Your task to perform on an android device: turn on javascript in the chrome app Image 0: 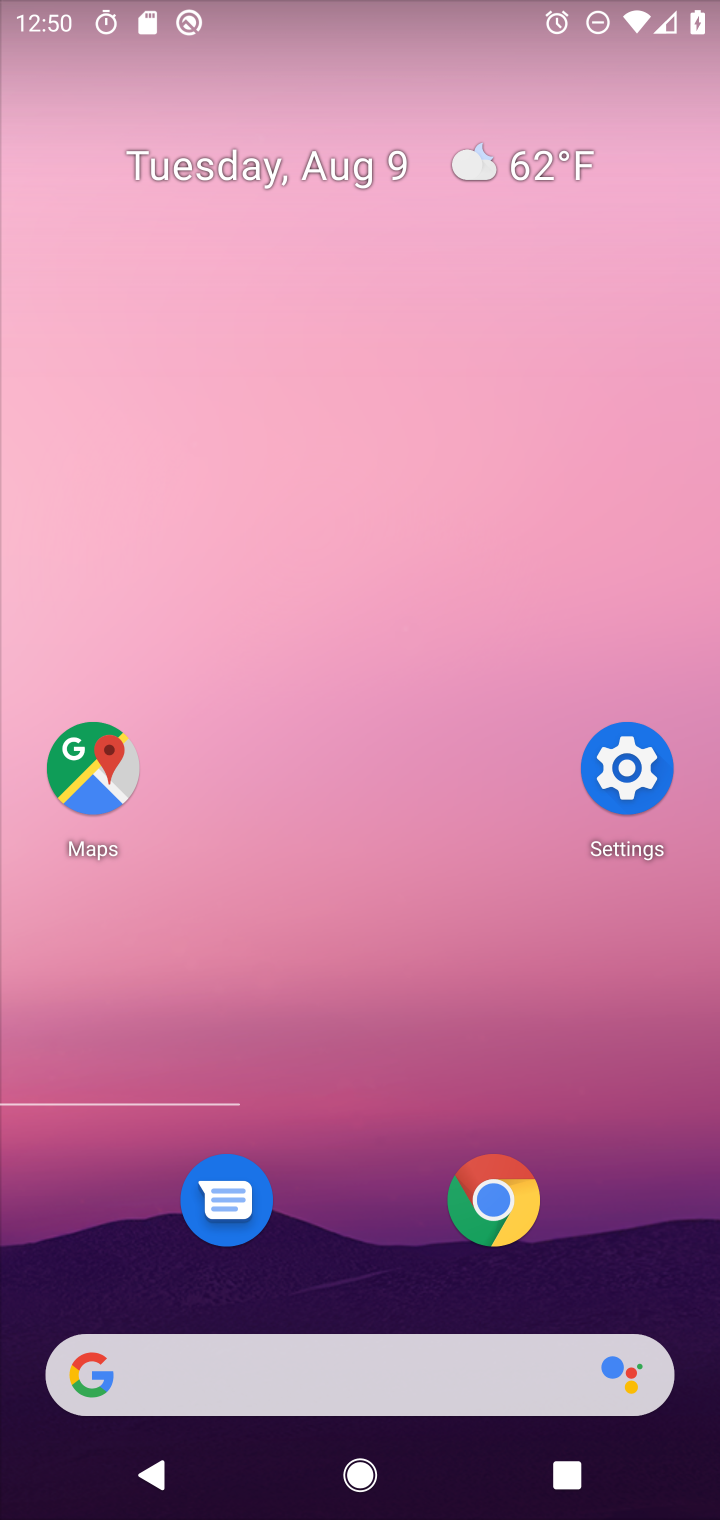
Step 0: click (502, 1203)
Your task to perform on an android device: turn on javascript in the chrome app Image 1: 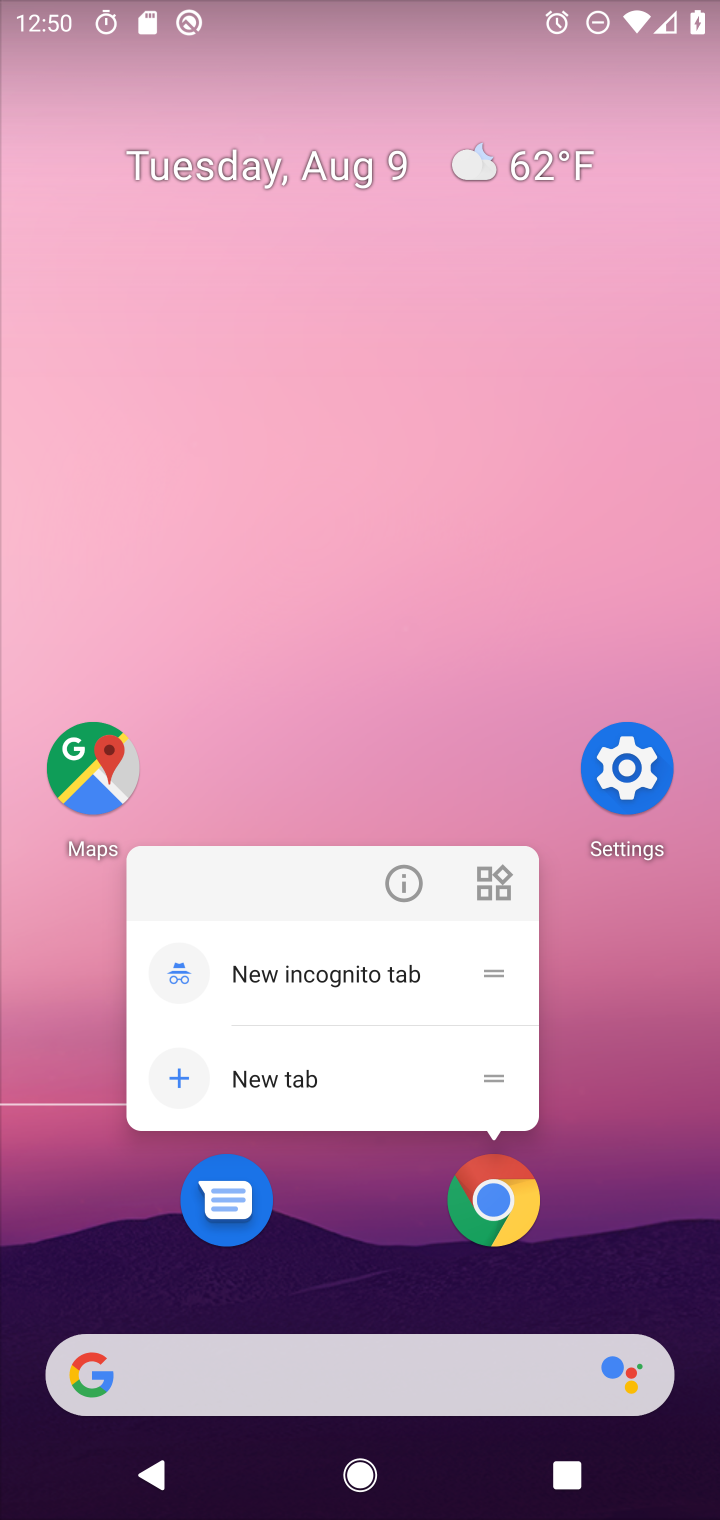
Step 1: click (489, 1191)
Your task to perform on an android device: turn on javascript in the chrome app Image 2: 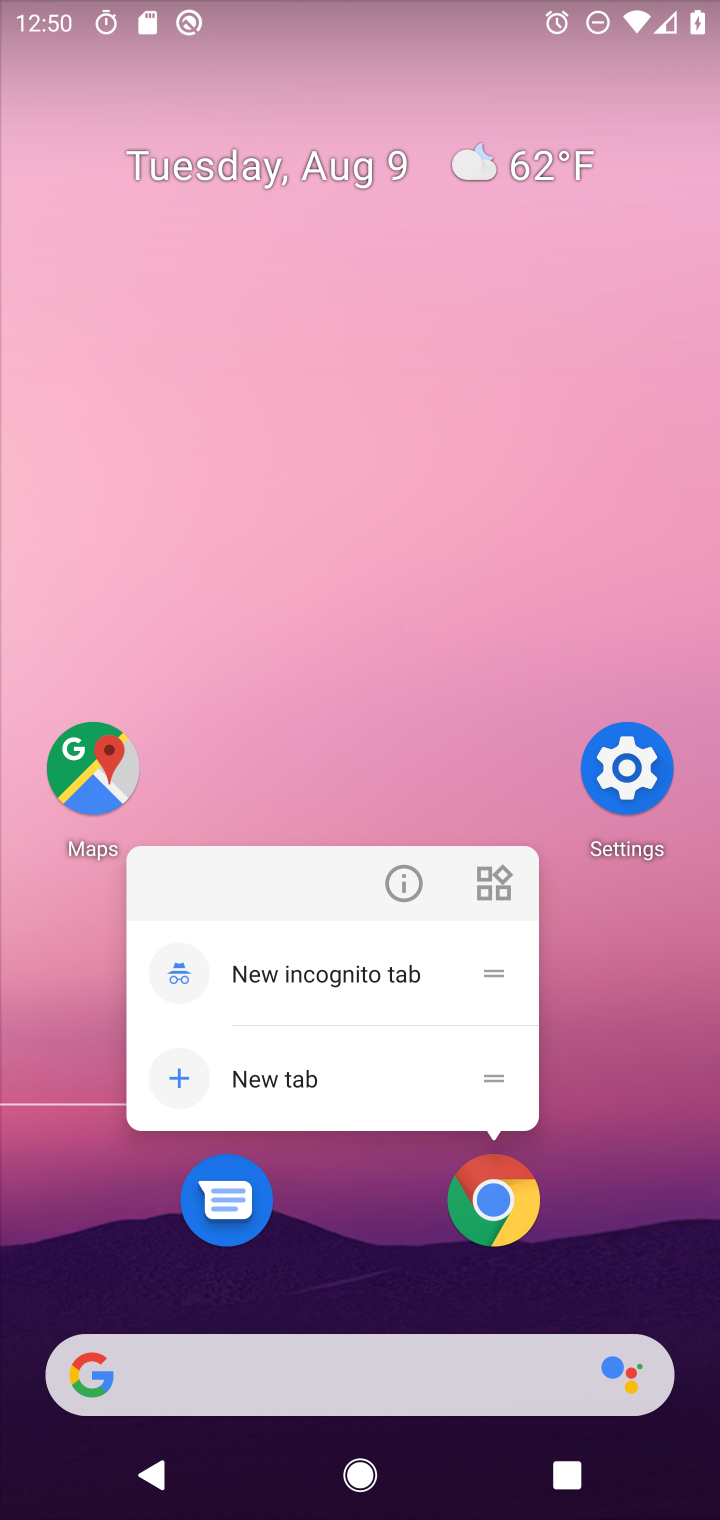
Step 2: click (489, 1201)
Your task to perform on an android device: turn on javascript in the chrome app Image 3: 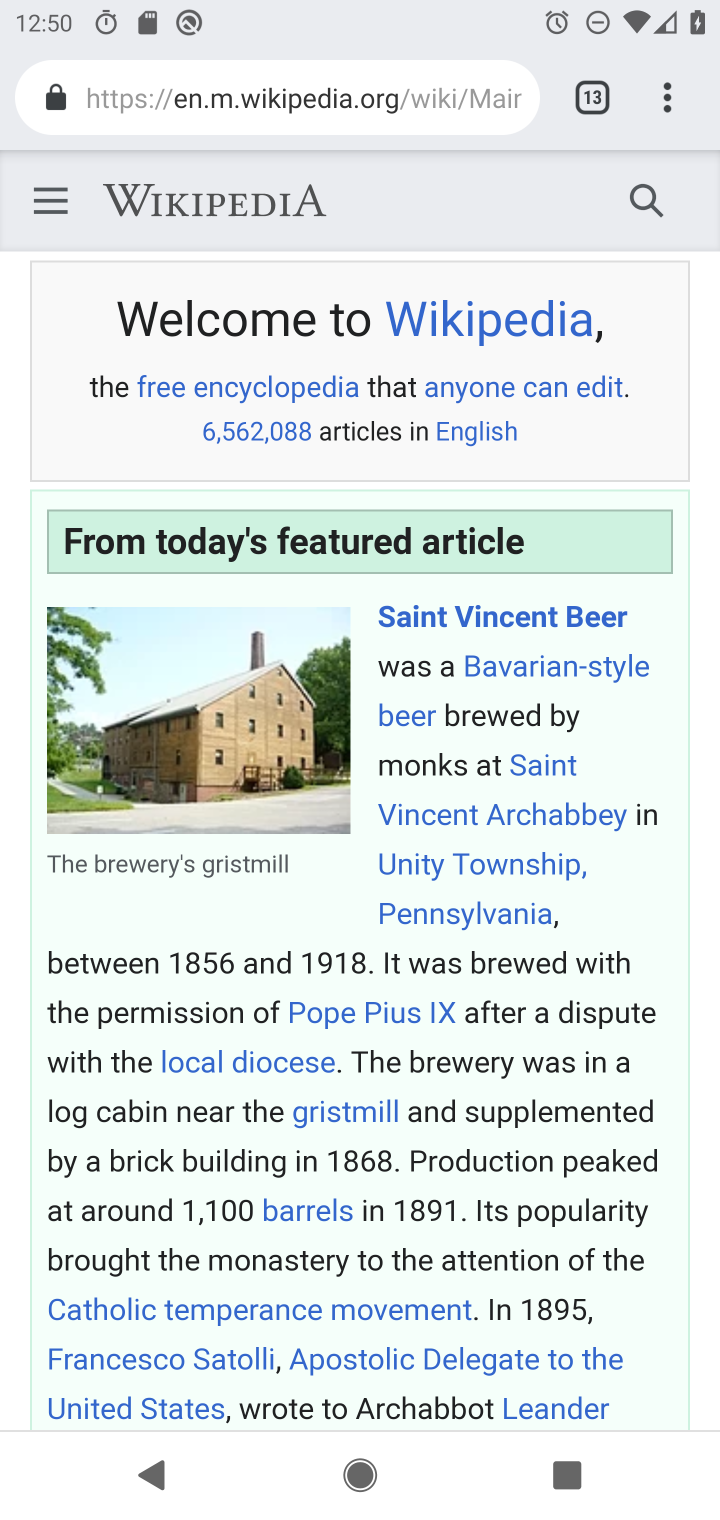
Step 3: drag from (660, 79) to (392, 1254)
Your task to perform on an android device: turn on javascript in the chrome app Image 4: 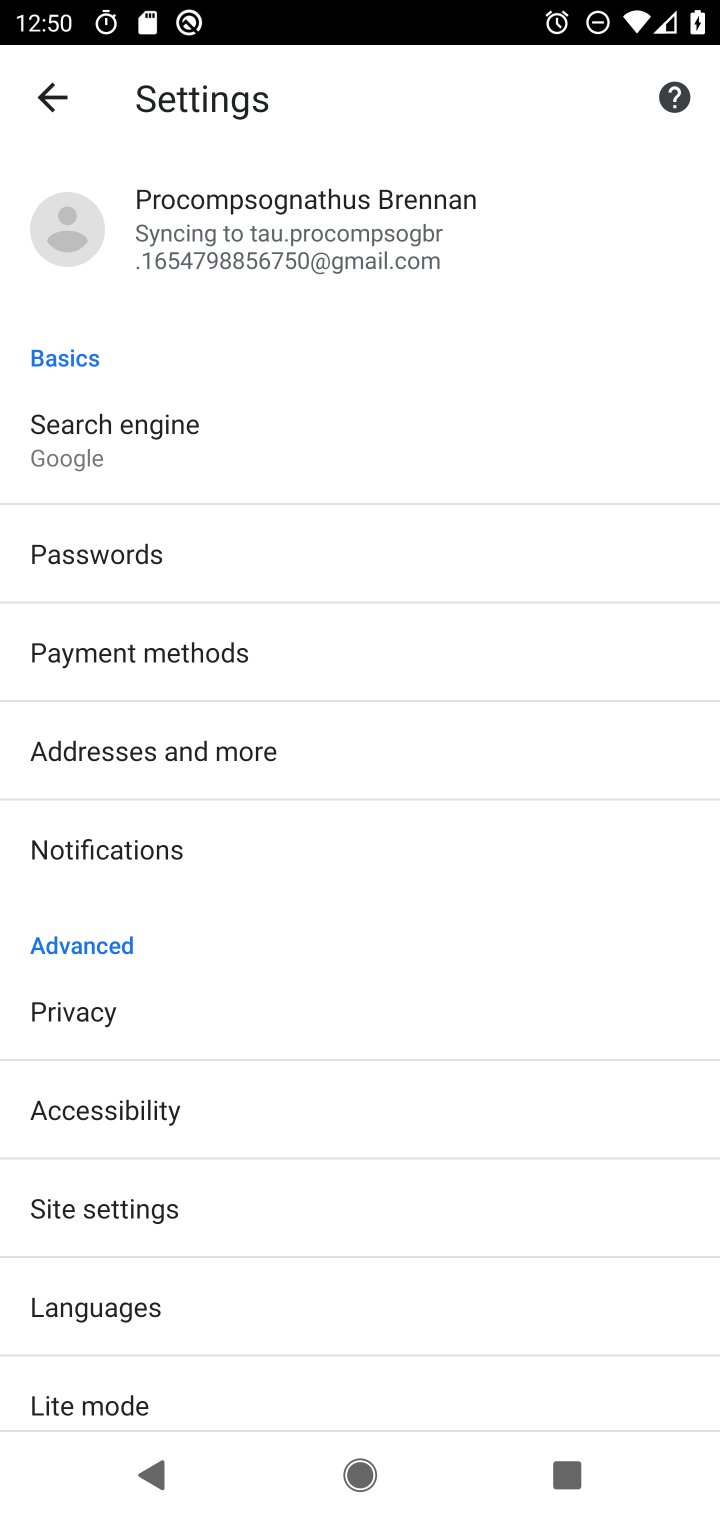
Step 4: click (187, 1199)
Your task to perform on an android device: turn on javascript in the chrome app Image 5: 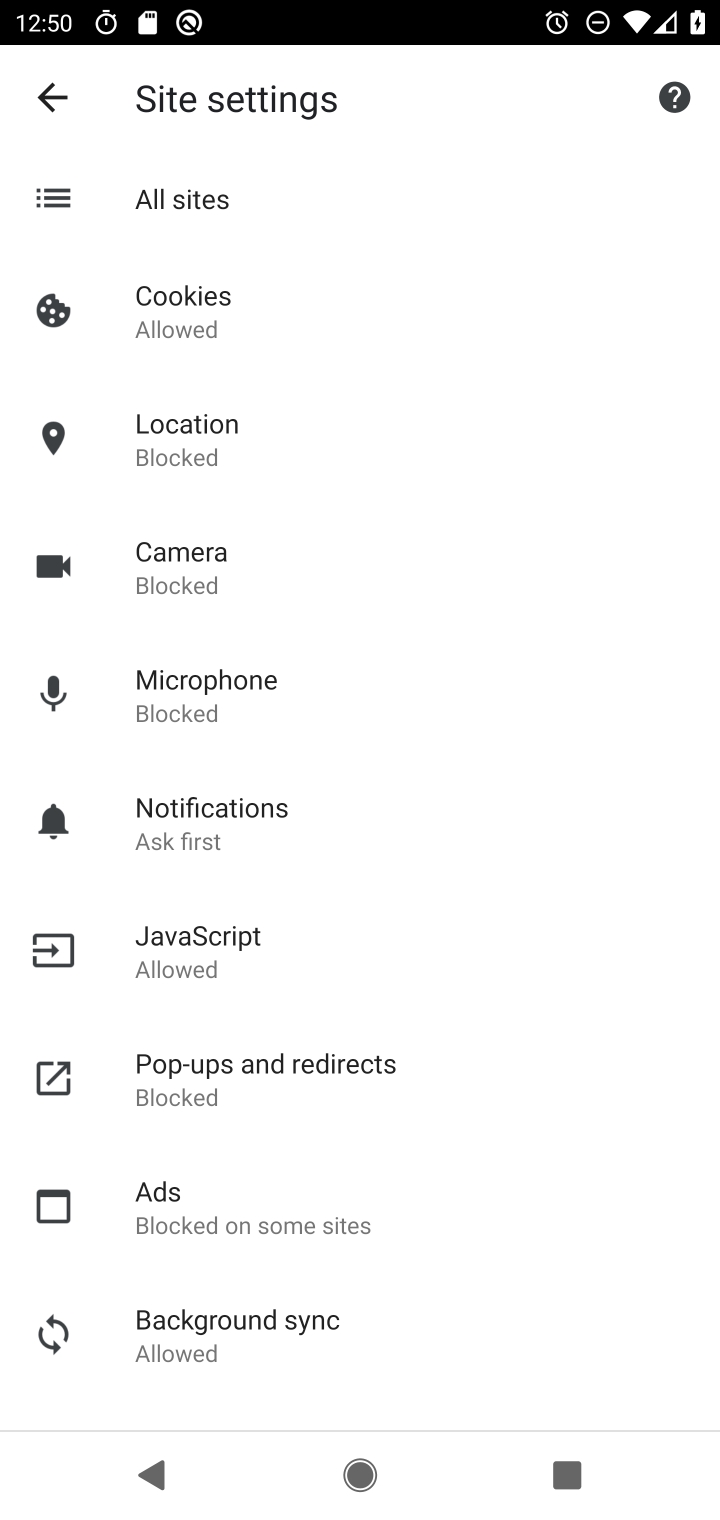
Step 5: click (208, 942)
Your task to perform on an android device: turn on javascript in the chrome app Image 6: 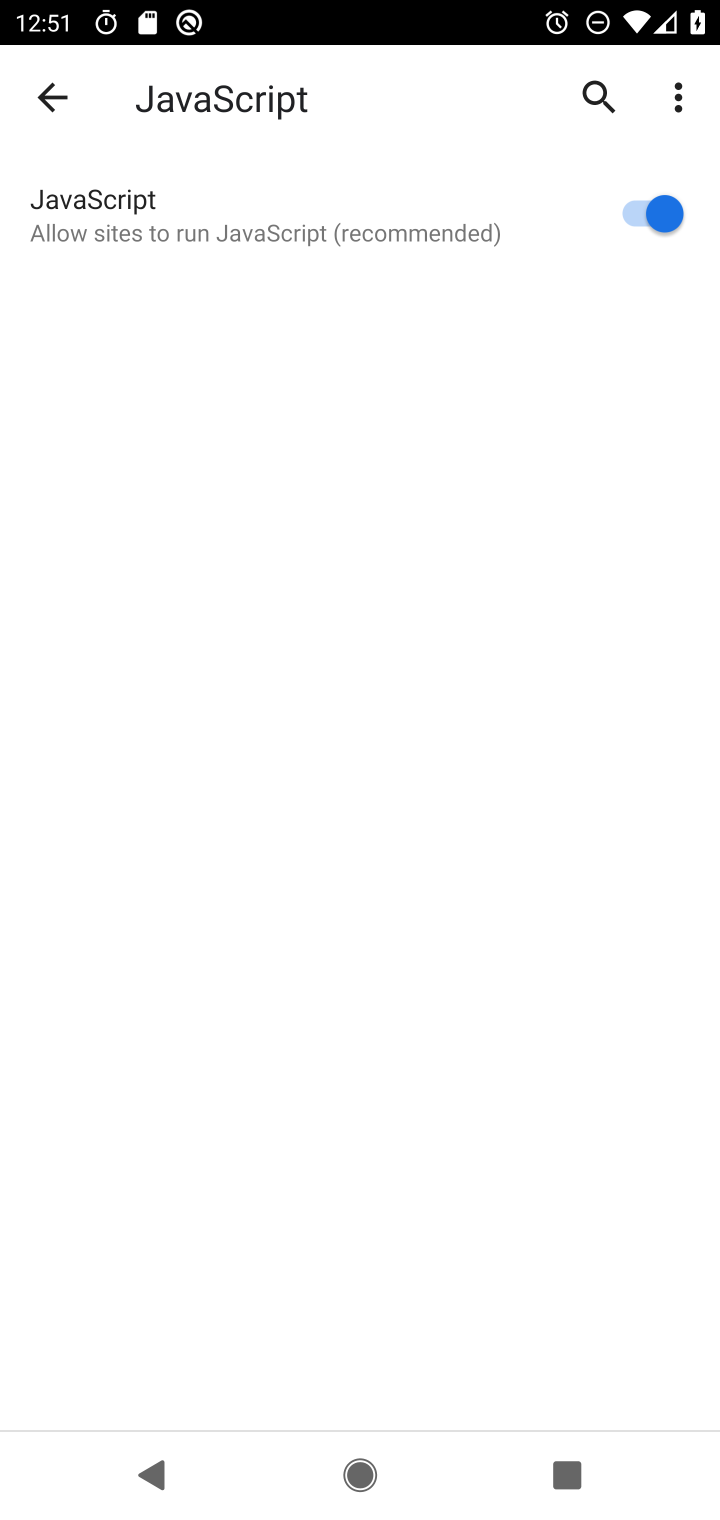
Step 6: task complete